Your task to perform on an android device: turn pop-ups off in chrome Image 0: 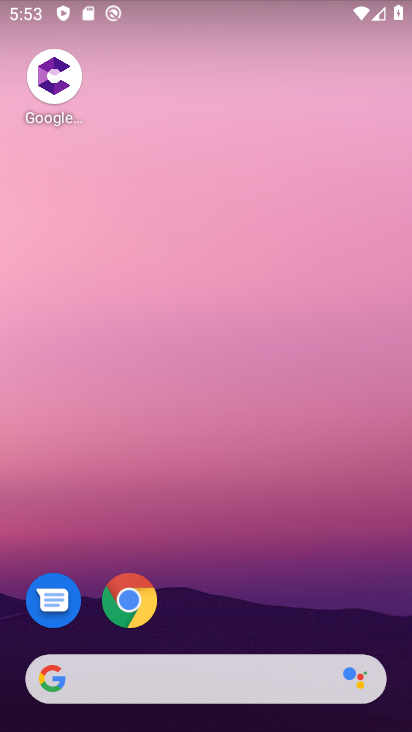
Step 0: drag from (263, 606) to (228, 135)
Your task to perform on an android device: turn pop-ups off in chrome Image 1: 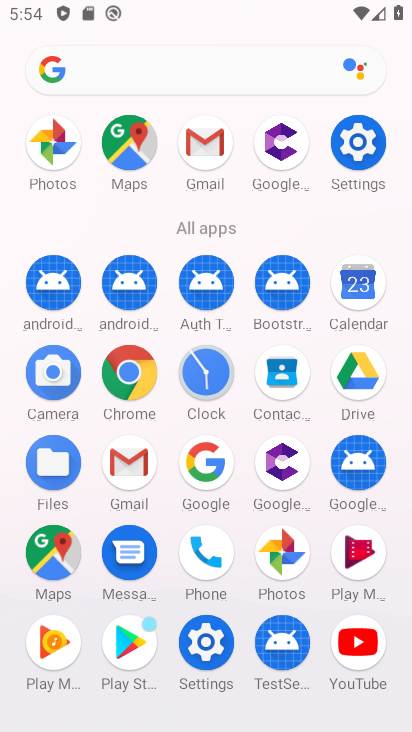
Step 1: click (131, 391)
Your task to perform on an android device: turn pop-ups off in chrome Image 2: 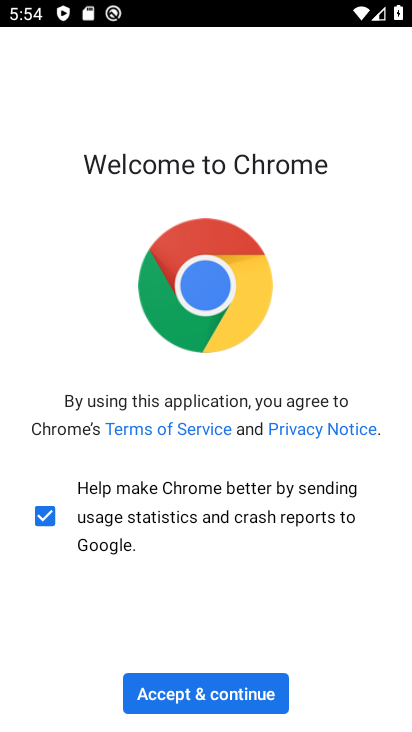
Step 2: click (206, 699)
Your task to perform on an android device: turn pop-ups off in chrome Image 3: 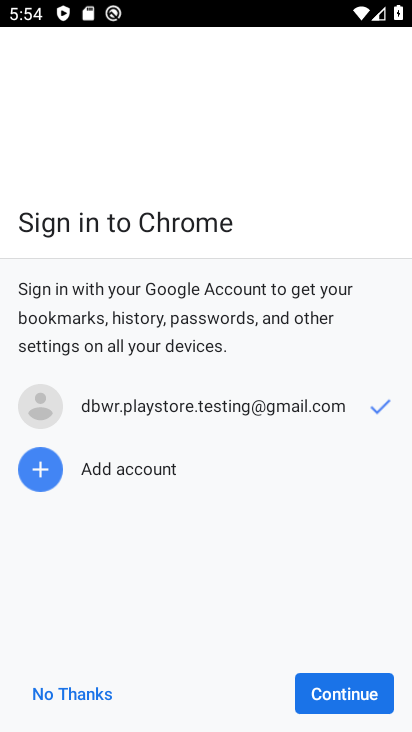
Step 3: click (324, 693)
Your task to perform on an android device: turn pop-ups off in chrome Image 4: 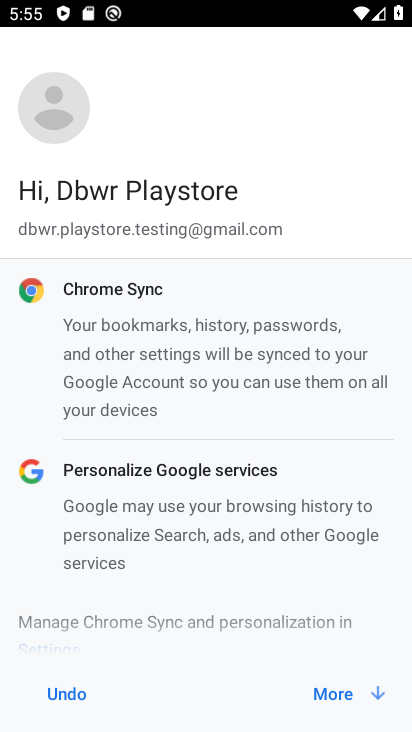
Step 4: click (345, 689)
Your task to perform on an android device: turn pop-ups off in chrome Image 5: 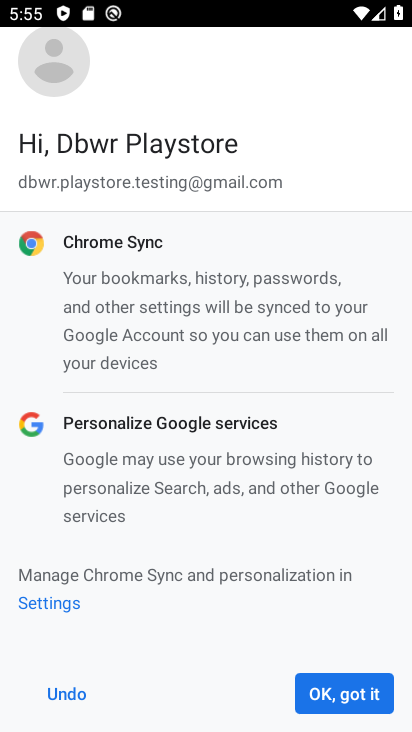
Step 5: click (345, 689)
Your task to perform on an android device: turn pop-ups off in chrome Image 6: 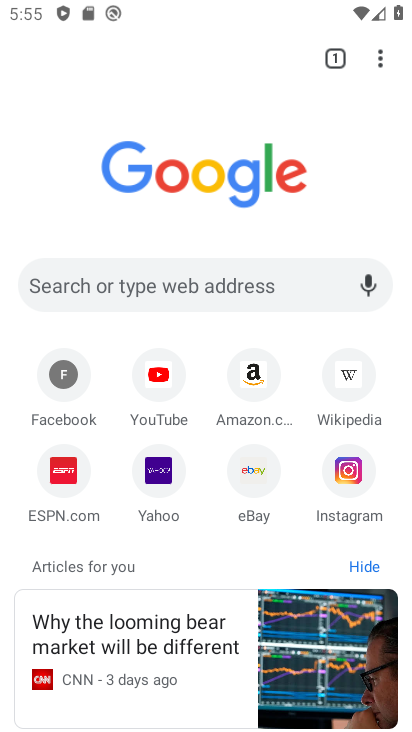
Step 6: click (376, 68)
Your task to perform on an android device: turn pop-ups off in chrome Image 7: 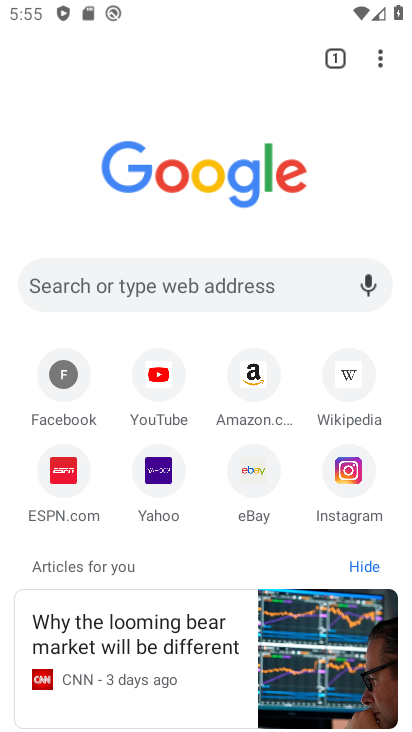
Step 7: click (385, 60)
Your task to perform on an android device: turn pop-ups off in chrome Image 8: 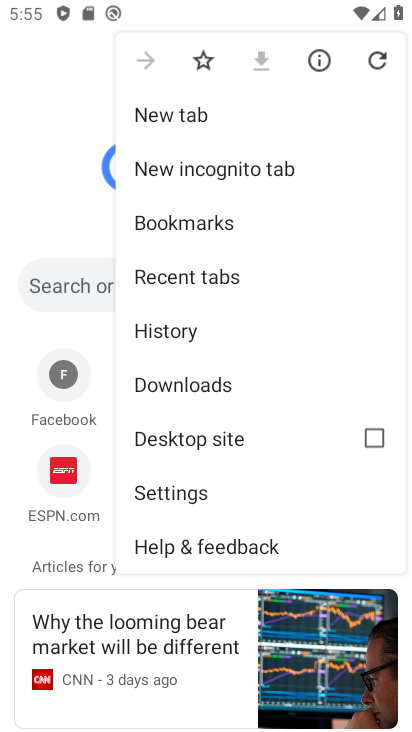
Step 8: click (212, 502)
Your task to perform on an android device: turn pop-ups off in chrome Image 9: 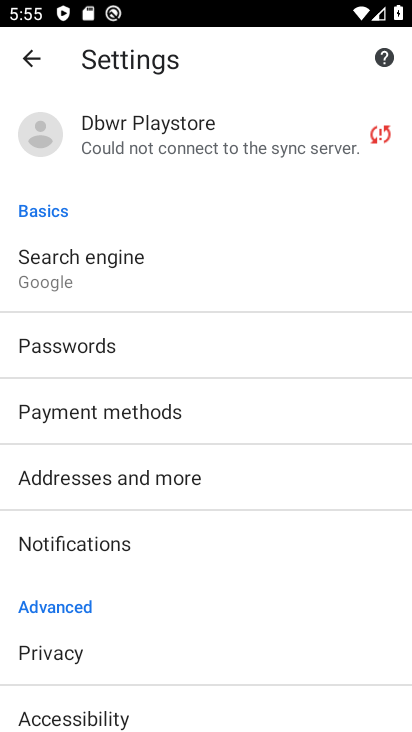
Step 9: drag from (144, 617) to (129, 372)
Your task to perform on an android device: turn pop-ups off in chrome Image 10: 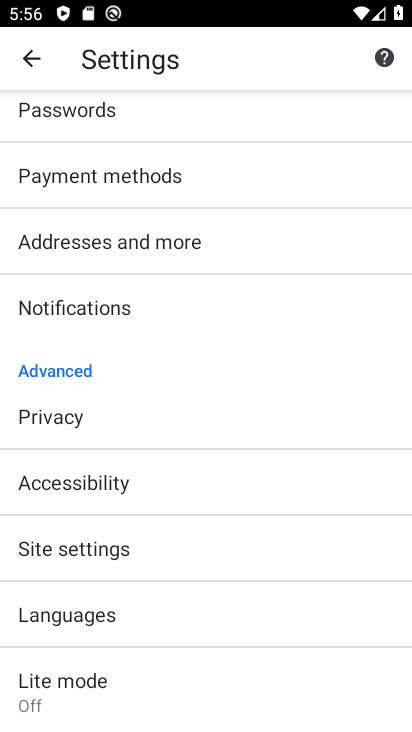
Step 10: click (119, 547)
Your task to perform on an android device: turn pop-ups off in chrome Image 11: 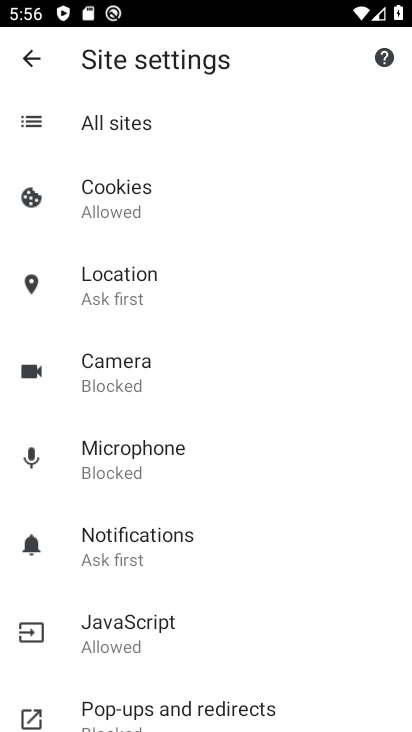
Step 11: click (197, 708)
Your task to perform on an android device: turn pop-ups off in chrome Image 12: 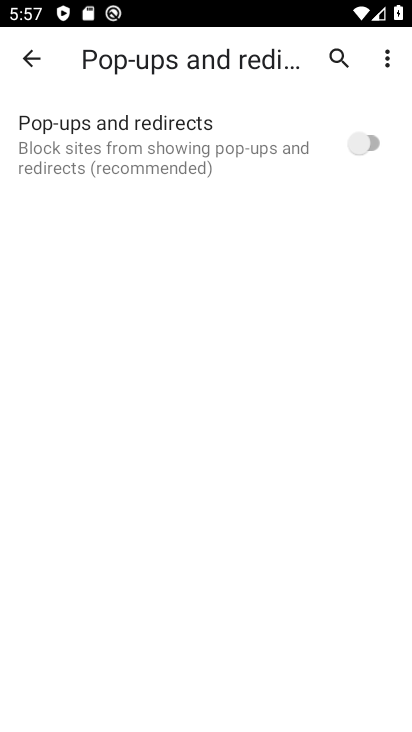
Step 12: task complete